Your task to perform on an android device: find photos in the google photos app Image 0: 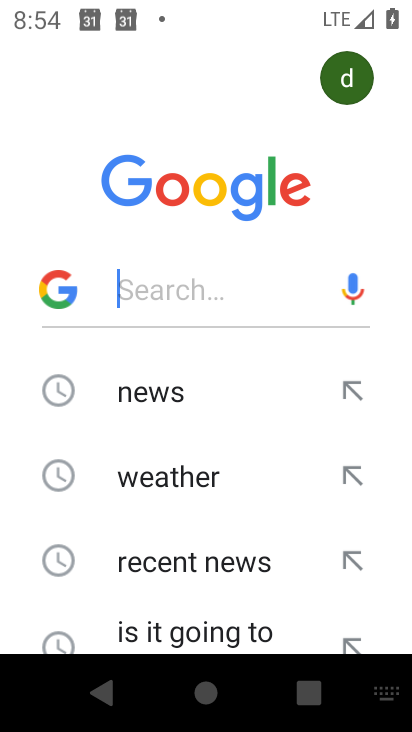
Step 0: press home button
Your task to perform on an android device: find photos in the google photos app Image 1: 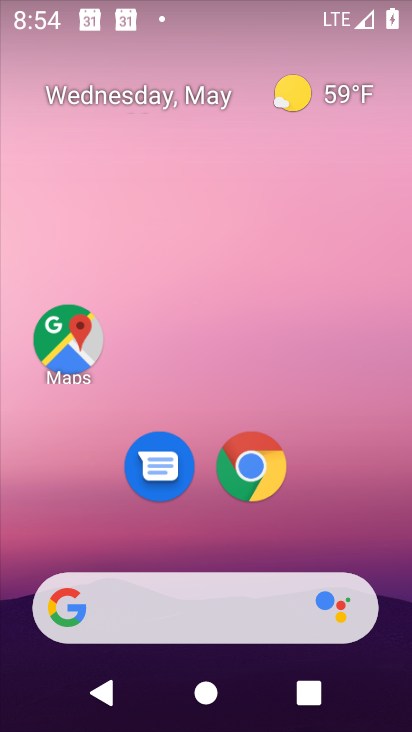
Step 1: drag from (329, 414) to (341, 254)
Your task to perform on an android device: find photos in the google photos app Image 2: 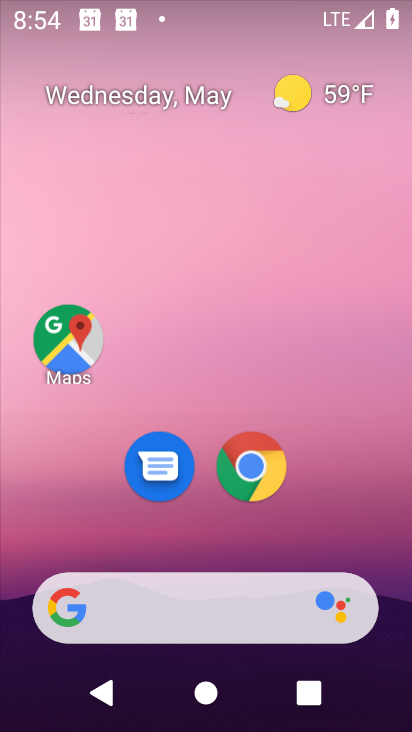
Step 2: drag from (313, 493) to (350, 311)
Your task to perform on an android device: find photos in the google photos app Image 3: 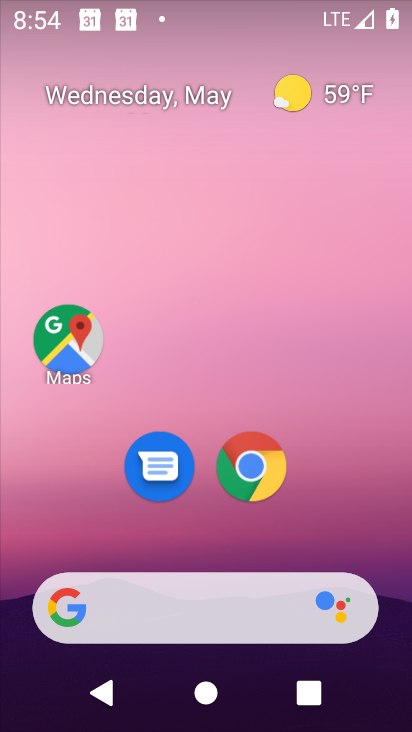
Step 3: drag from (245, 613) to (291, 311)
Your task to perform on an android device: find photos in the google photos app Image 4: 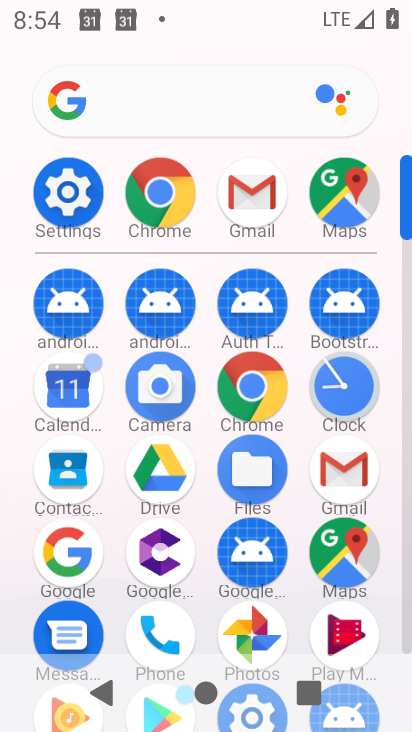
Step 4: click (243, 623)
Your task to perform on an android device: find photos in the google photos app Image 5: 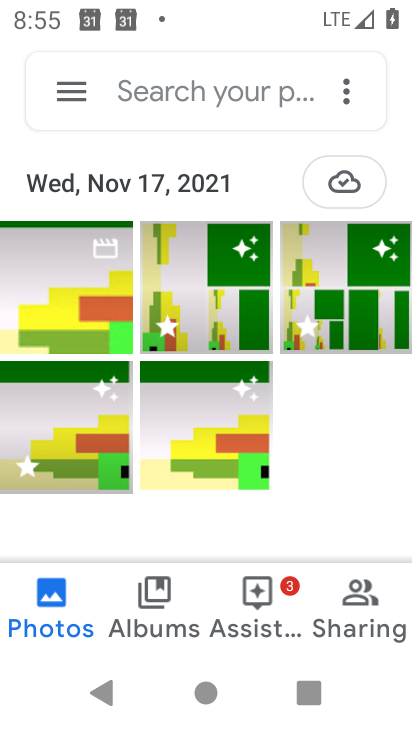
Step 5: task complete